Your task to perform on an android device: Is it going to rain today? Image 0: 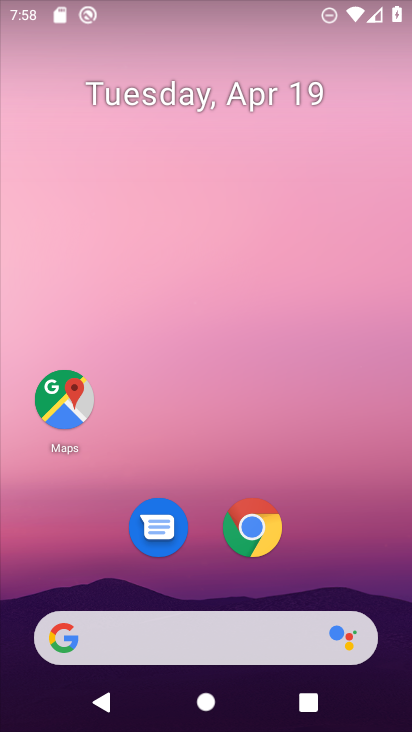
Step 0: drag from (10, 244) to (402, 232)
Your task to perform on an android device: Is it going to rain today? Image 1: 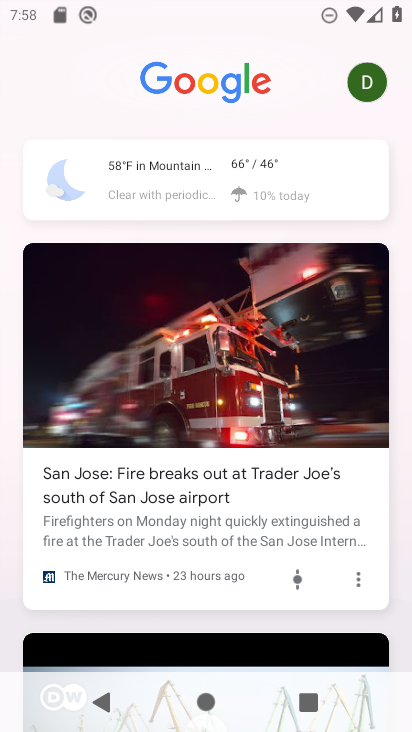
Step 1: click (213, 193)
Your task to perform on an android device: Is it going to rain today? Image 2: 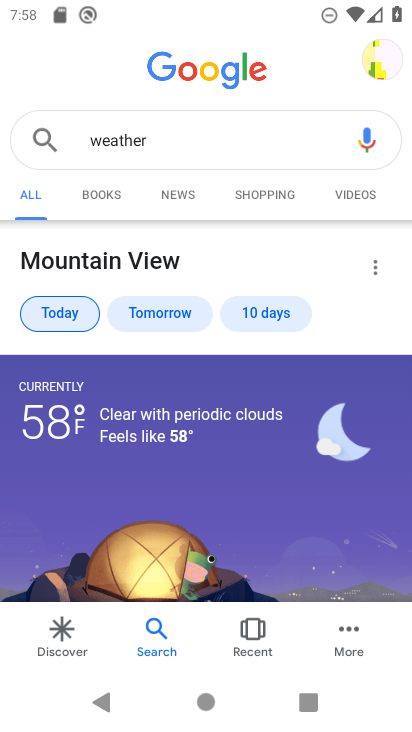
Step 2: drag from (159, 485) to (271, 187)
Your task to perform on an android device: Is it going to rain today? Image 3: 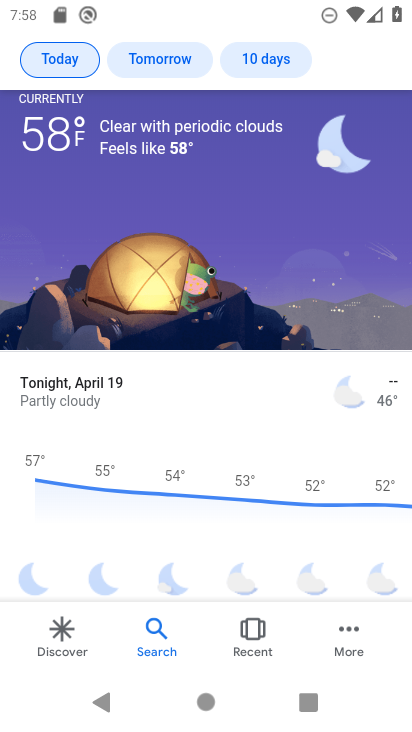
Step 3: click (57, 68)
Your task to perform on an android device: Is it going to rain today? Image 4: 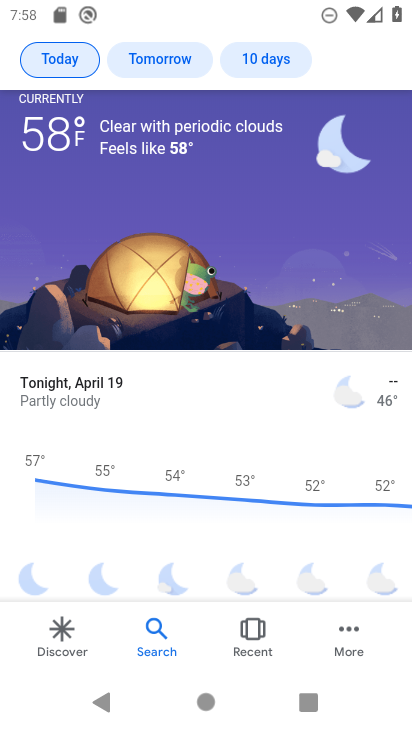
Step 4: task complete